Your task to perform on an android device: Open Google Maps Image 0: 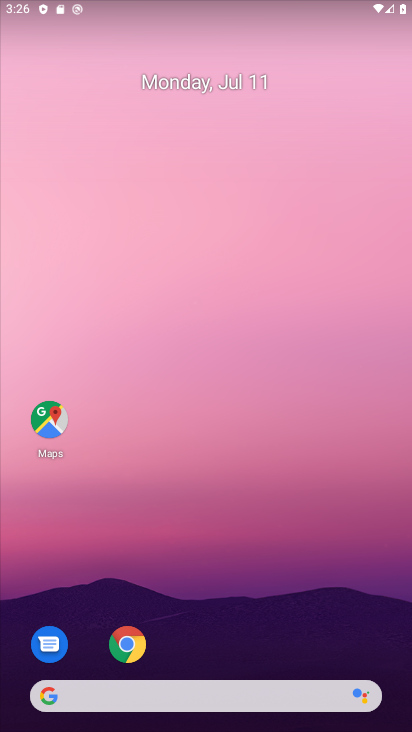
Step 0: click (260, 76)
Your task to perform on an android device: Open Google Maps Image 1: 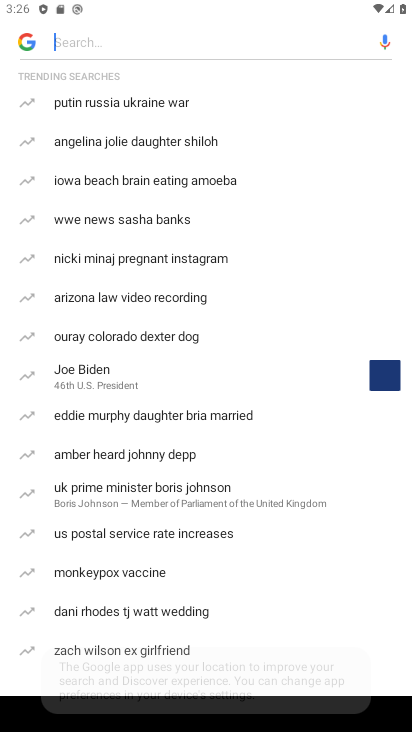
Step 1: press home button
Your task to perform on an android device: Open Google Maps Image 2: 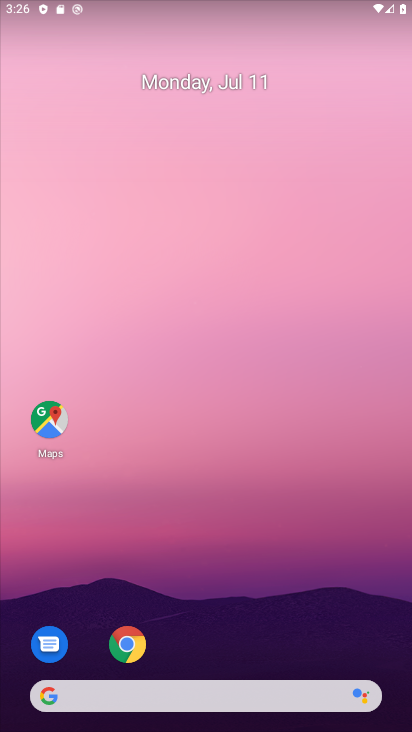
Step 2: drag from (181, 678) to (266, 167)
Your task to perform on an android device: Open Google Maps Image 3: 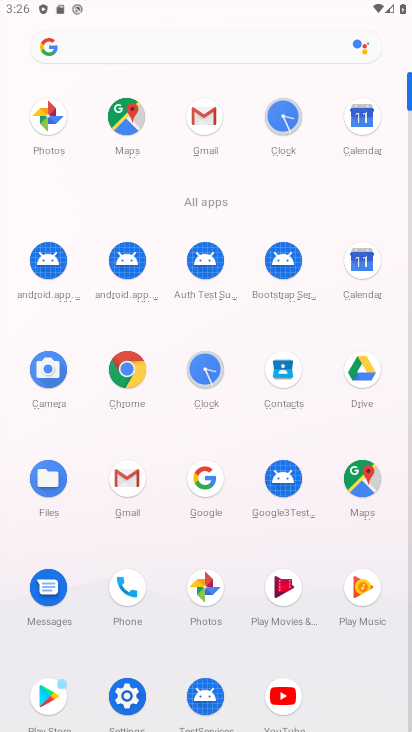
Step 3: click (367, 476)
Your task to perform on an android device: Open Google Maps Image 4: 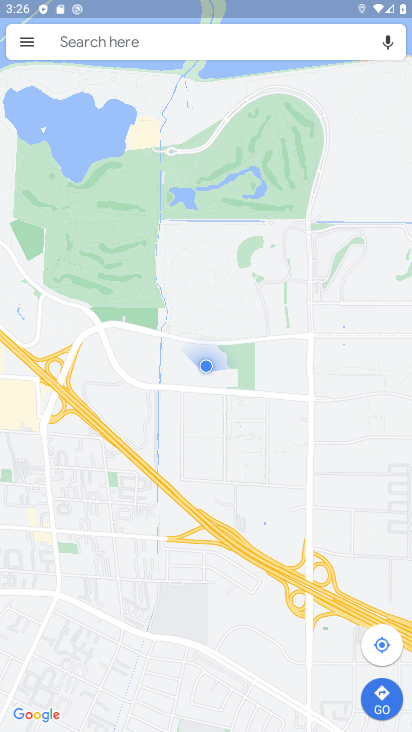
Step 4: task complete